Your task to perform on an android device: Go to calendar. Show me events next week Image 0: 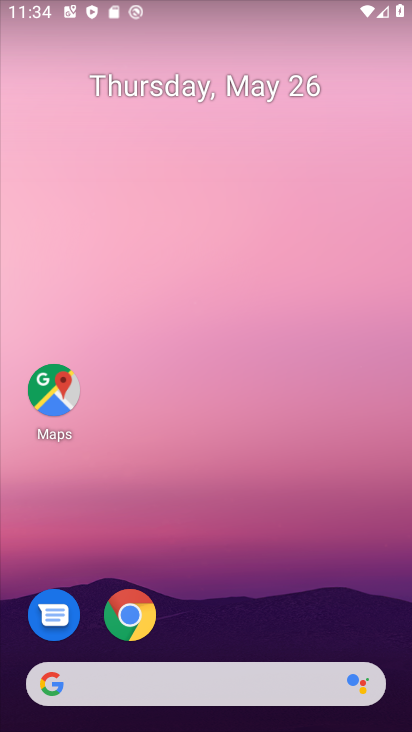
Step 0: drag from (101, 662) to (179, 14)
Your task to perform on an android device: Go to calendar. Show me events next week Image 1: 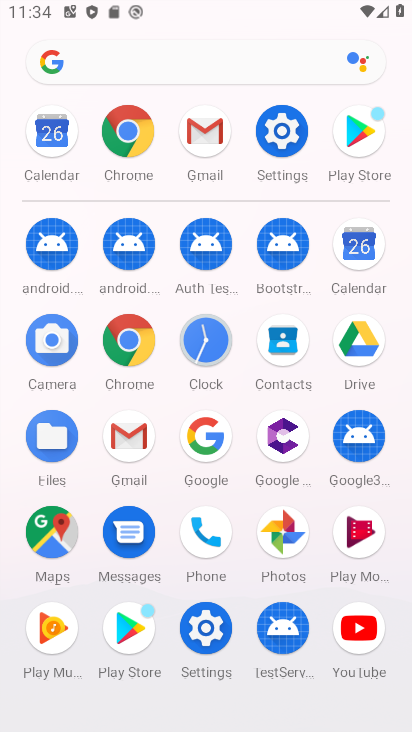
Step 1: click (358, 246)
Your task to perform on an android device: Go to calendar. Show me events next week Image 2: 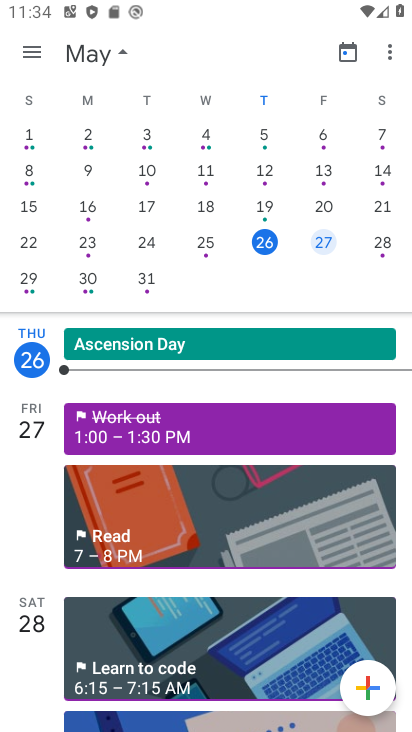
Step 2: click (88, 281)
Your task to perform on an android device: Go to calendar. Show me events next week Image 3: 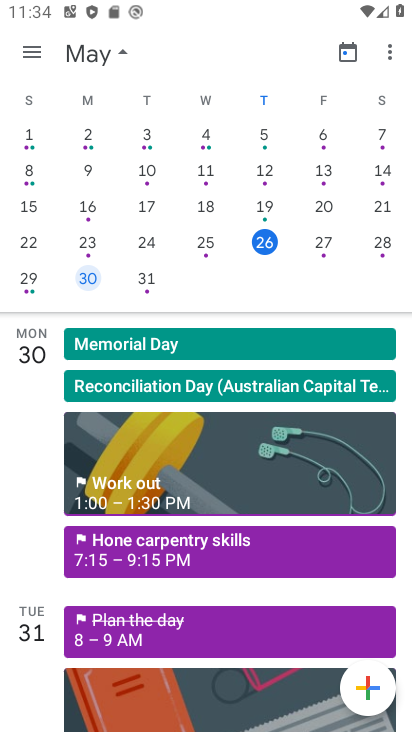
Step 3: click (123, 49)
Your task to perform on an android device: Go to calendar. Show me events next week Image 4: 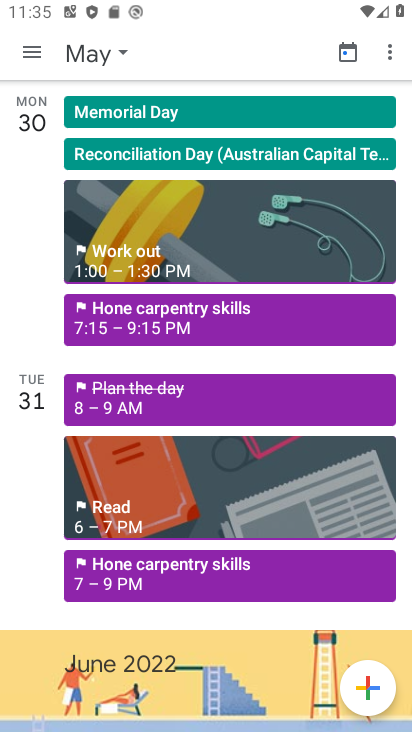
Step 4: click (125, 50)
Your task to perform on an android device: Go to calendar. Show me events next week Image 5: 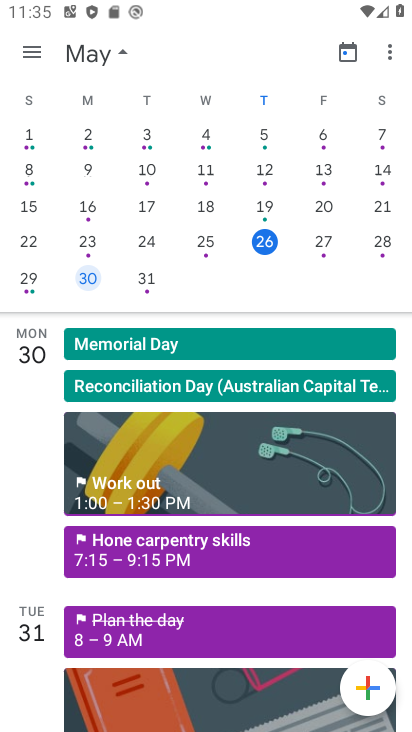
Step 5: click (84, 275)
Your task to perform on an android device: Go to calendar. Show me events next week Image 6: 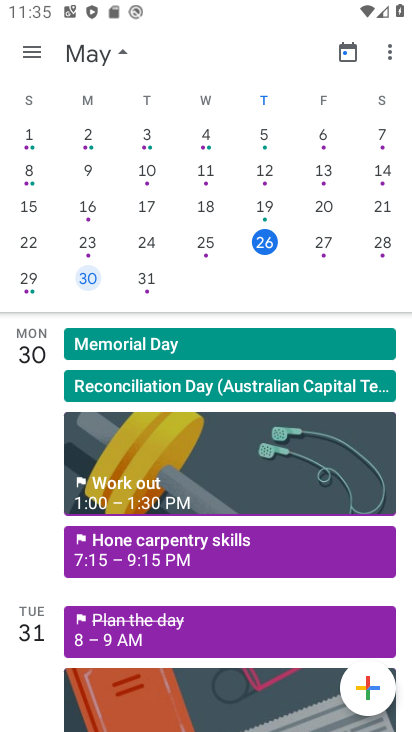
Step 6: click (40, 49)
Your task to perform on an android device: Go to calendar. Show me events next week Image 7: 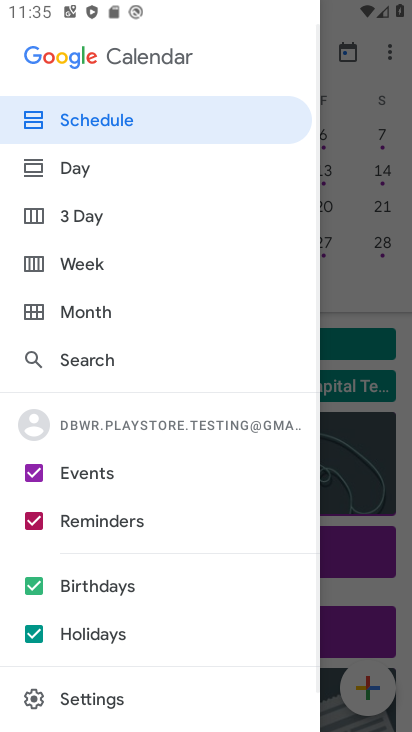
Step 7: click (107, 267)
Your task to perform on an android device: Go to calendar. Show me events next week Image 8: 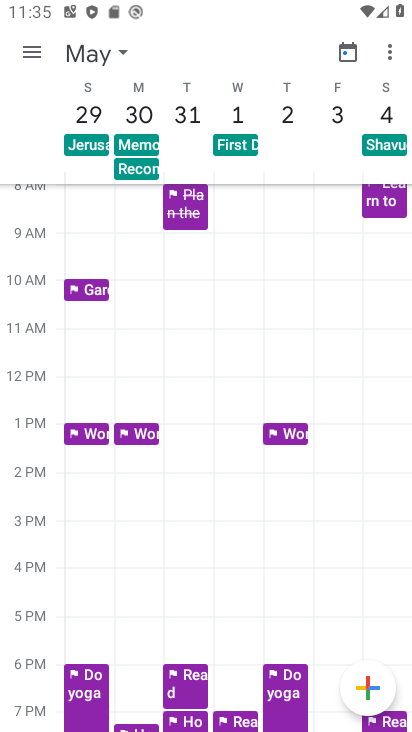
Step 8: task complete